Your task to perform on an android device: Search for seafood restaurants on Google Maps Image 0: 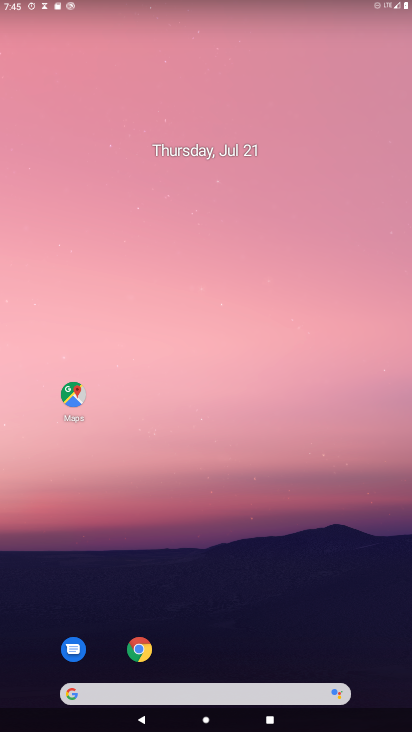
Step 0: drag from (382, 640) to (190, 65)
Your task to perform on an android device: Search for seafood restaurants on Google Maps Image 1: 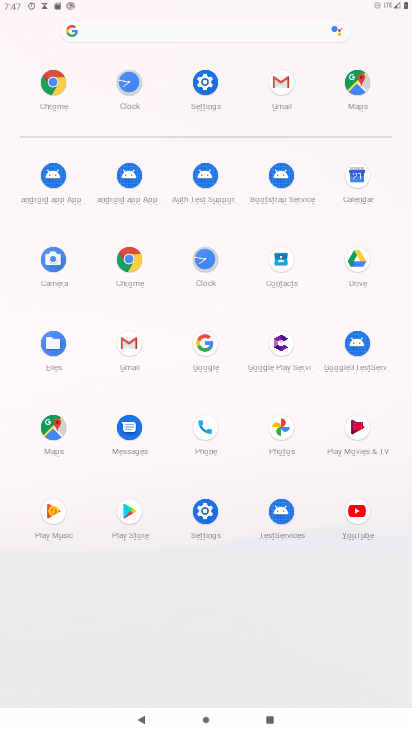
Step 1: click (41, 443)
Your task to perform on an android device: Search for seafood restaurants on Google Maps Image 2: 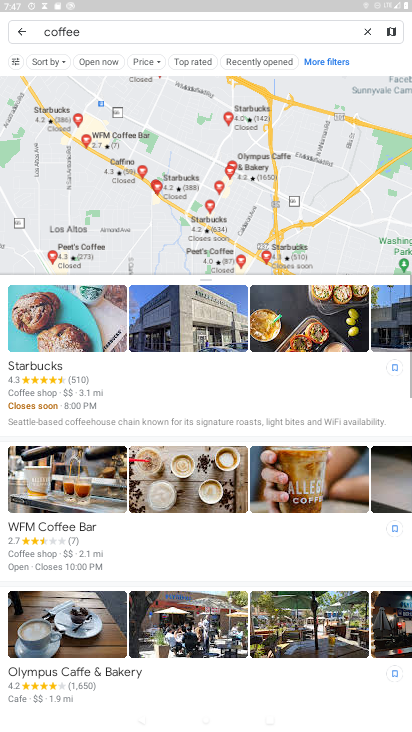
Step 2: click (370, 27)
Your task to perform on an android device: Search for seafood restaurants on Google Maps Image 3: 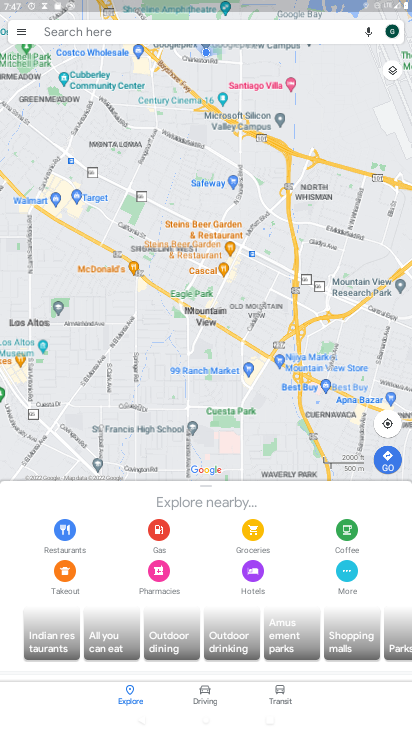
Step 3: click (95, 30)
Your task to perform on an android device: Search for seafood restaurants on Google Maps Image 4: 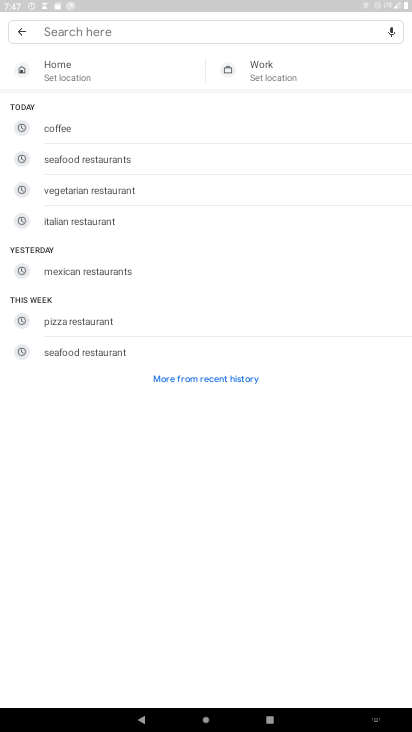
Step 4: click (97, 166)
Your task to perform on an android device: Search for seafood restaurants on Google Maps Image 5: 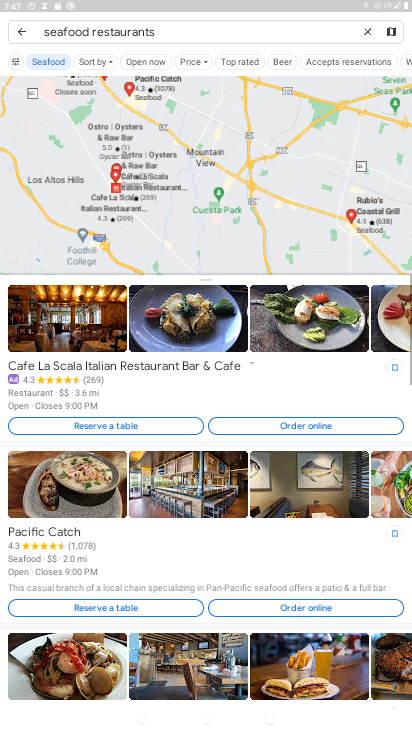
Step 5: task complete